Your task to perform on an android device: Open my contact list Image 0: 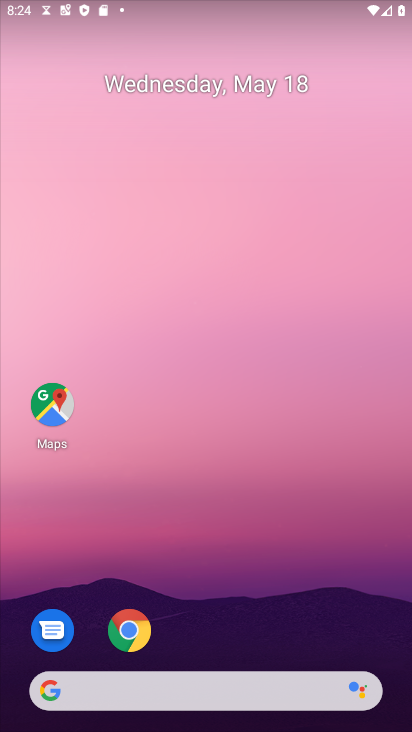
Step 0: press home button
Your task to perform on an android device: Open my contact list Image 1: 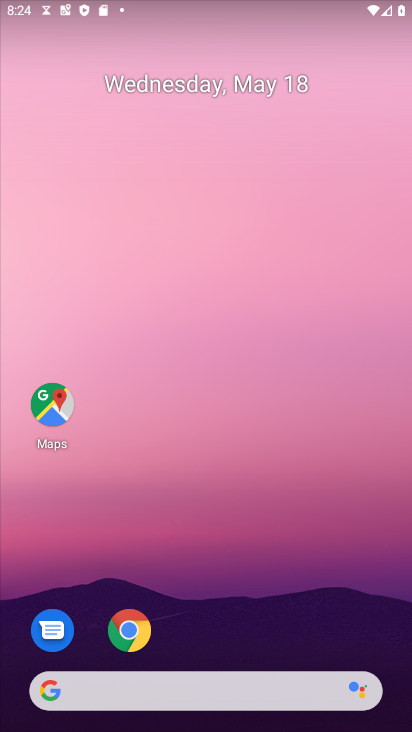
Step 1: drag from (151, 702) to (265, 234)
Your task to perform on an android device: Open my contact list Image 2: 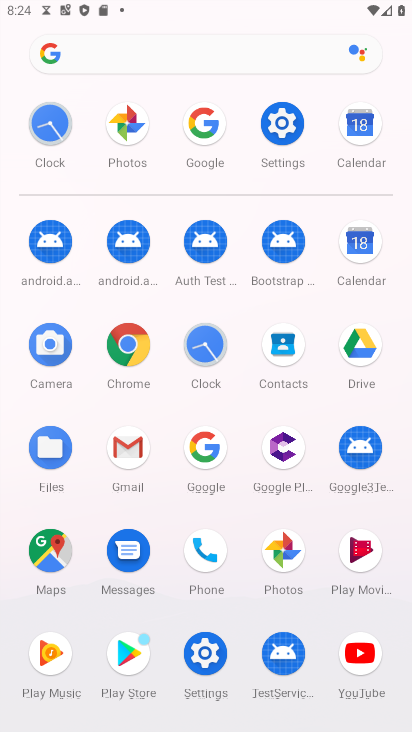
Step 2: click (281, 352)
Your task to perform on an android device: Open my contact list Image 3: 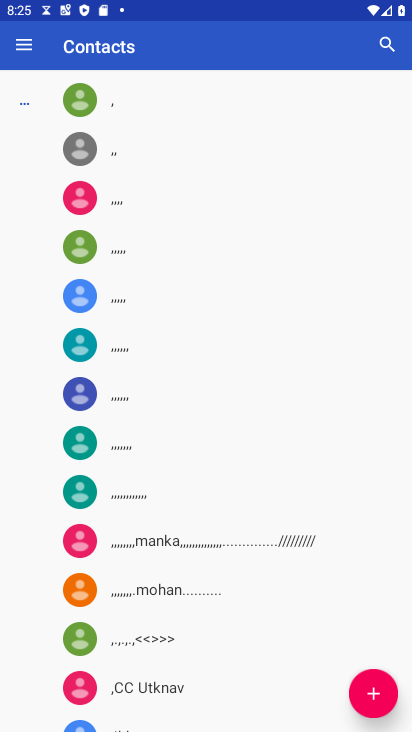
Step 3: task complete